Your task to perform on an android device: Open battery settings Image 0: 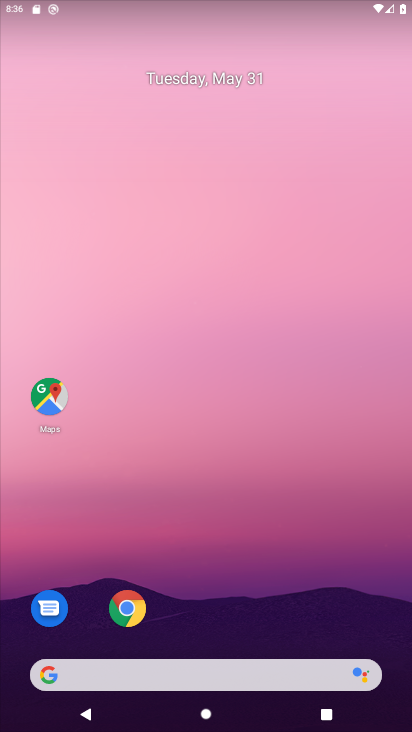
Step 0: drag from (241, 602) to (189, 31)
Your task to perform on an android device: Open battery settings Image 1: 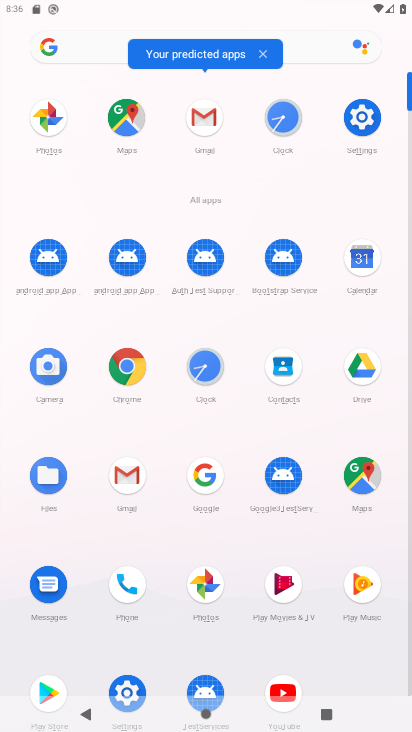
Step 1: click (361, 116)
Your task to perform on an android device: Open battery settings Image 2: 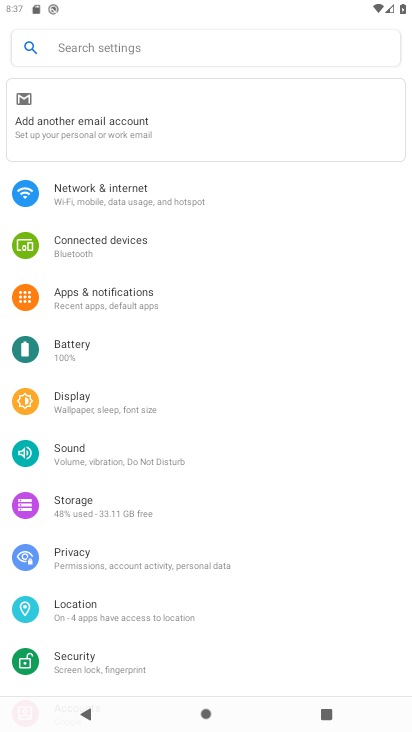
Step 2: click (85, 354)
Your task to perform on an android device: Open battery settings Image 3: 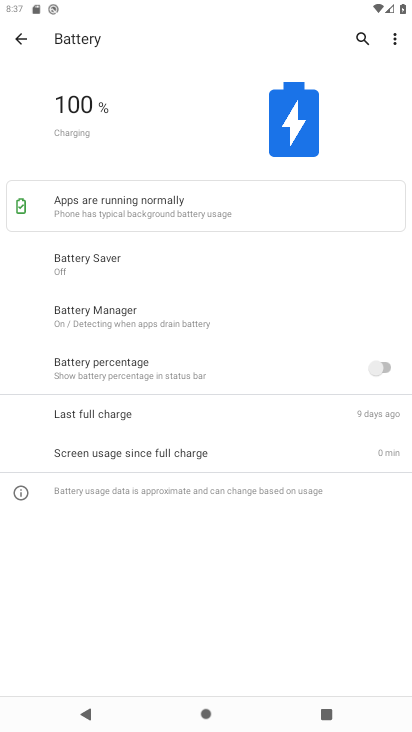
Step 3: task complete